Your task to perform on an android device: Open Reddit.com Image 0: 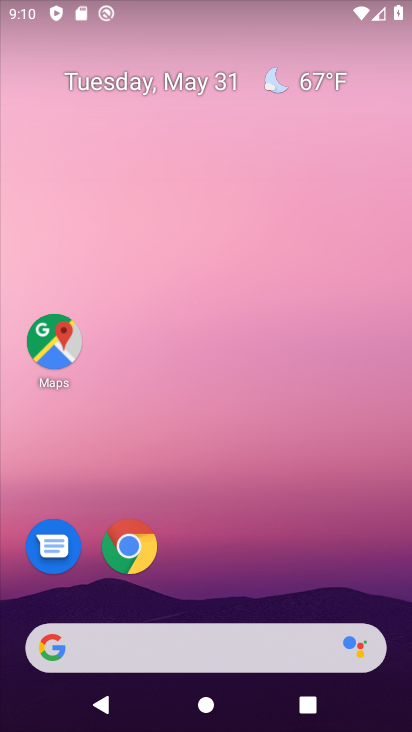
Step 0: click (148, 543)
Your task to perform on an android device: Open Reddit.com Image 1: 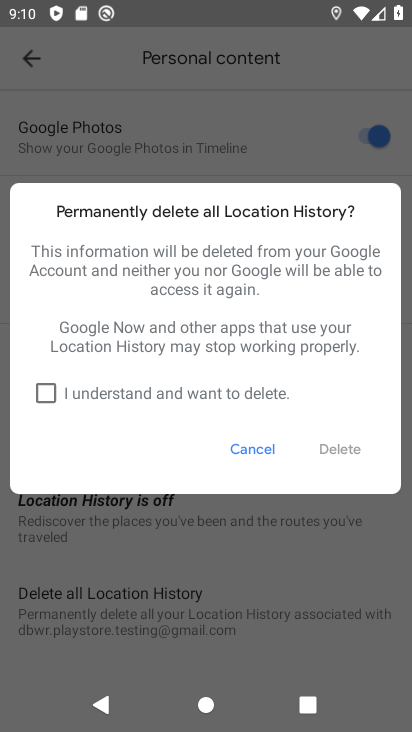
Step 1: press home button
Your task to perform on an android device: Open Reddit.com Image 2: 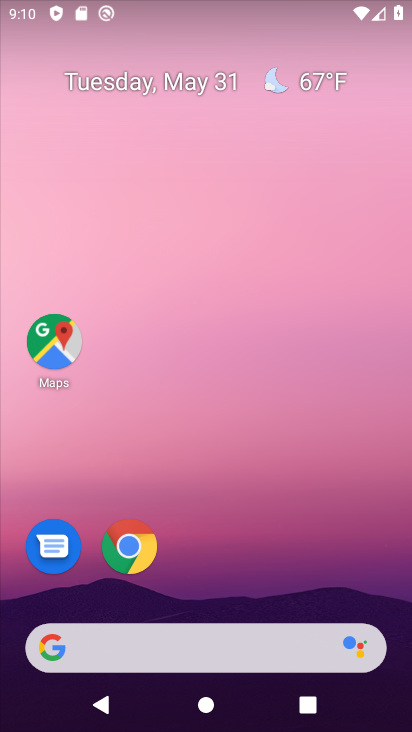
Step 2: click (142, 560)
Your task to perform on an android device: Open Reddit.com Image 3: 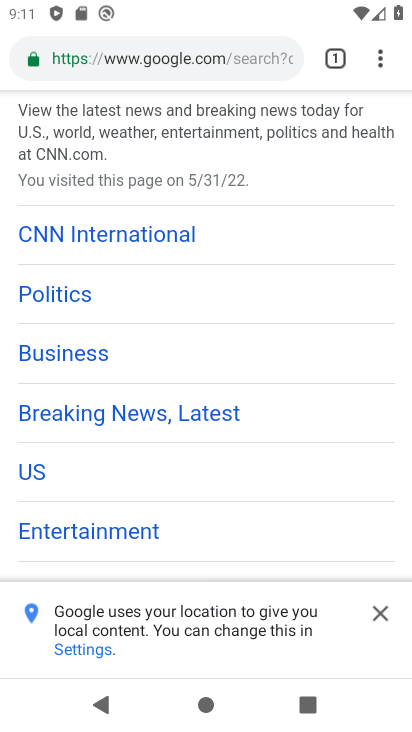
Step 3: click (141, 60)
Your task to perform on an android device: Open Reddit.com Image 4: 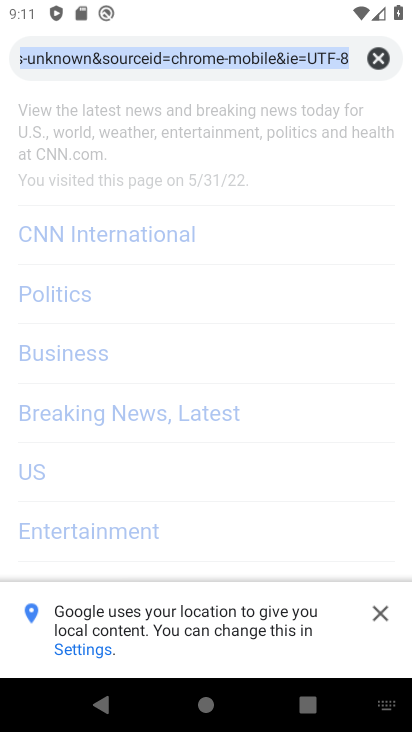
Step 4: type "Reddit.com"
Your task to perform on an android device: Open Reddit.com Image 5: 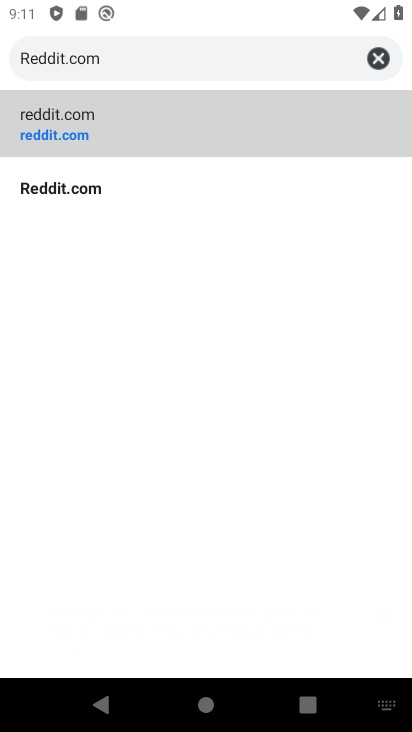
Step 5: click (85, 129)
Your task to perform on an android device: Open Reddit.com Image 6: 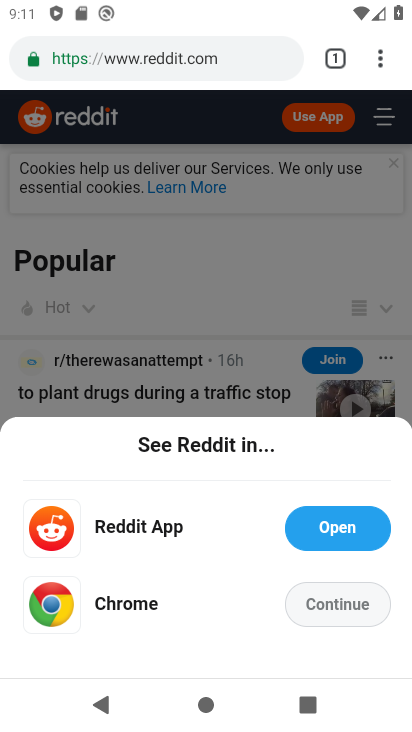
Step 6: task complete